Your task to perform on an android device: change the clock display to show seconds Image 0: 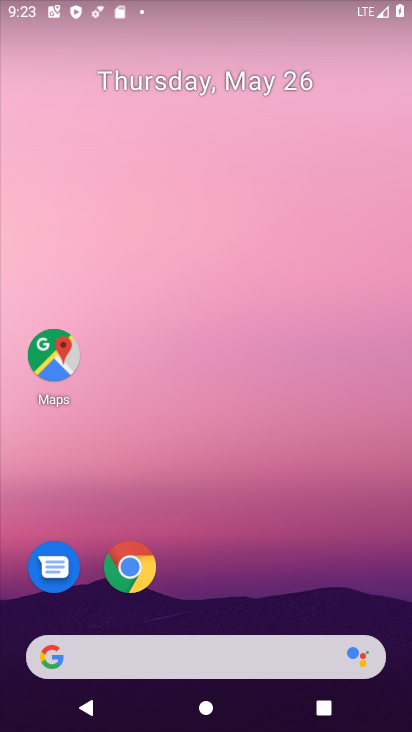
Step 0: drag from (150, 629) to (182, 0)
Your task to perform on an android device: change the clock display to show seconds Image 1: 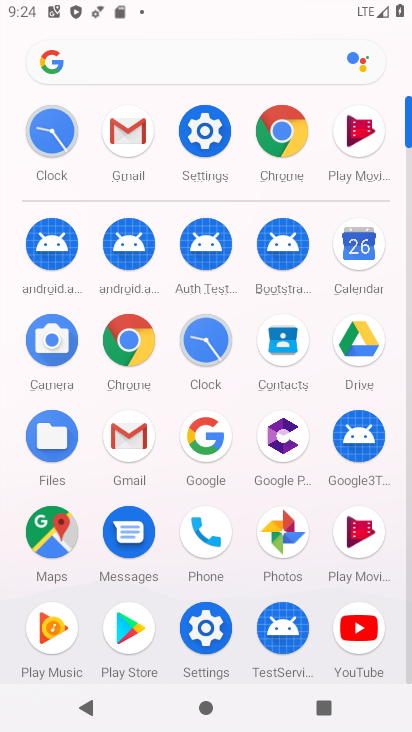
Step 1: click (209, 349)
Your task to perform on an android device: change the clock display to show seconds Image 2: 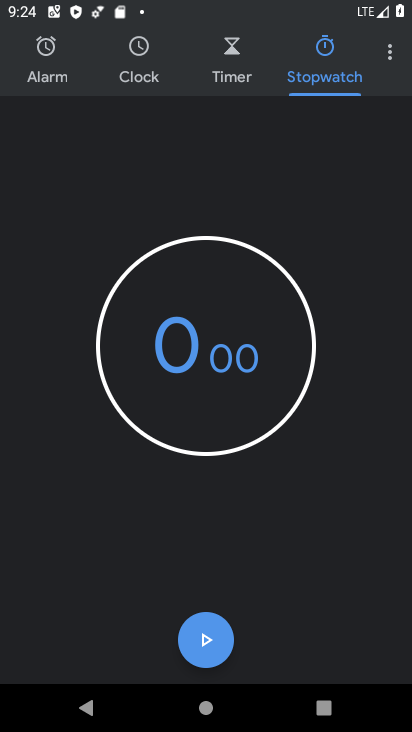
Step 2: click (389, 51)
Your task to perform on an android device: change the clock display to show seconds Image 3: 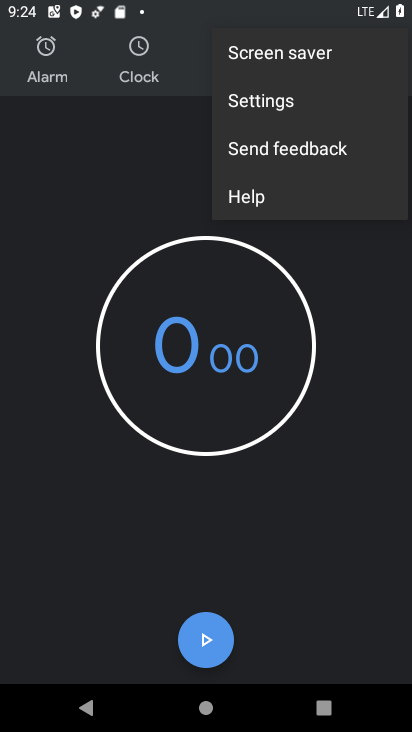
Step 3: click (296, 106)
Your task to perform on an android device: change the clock display to show seconds Image 4: 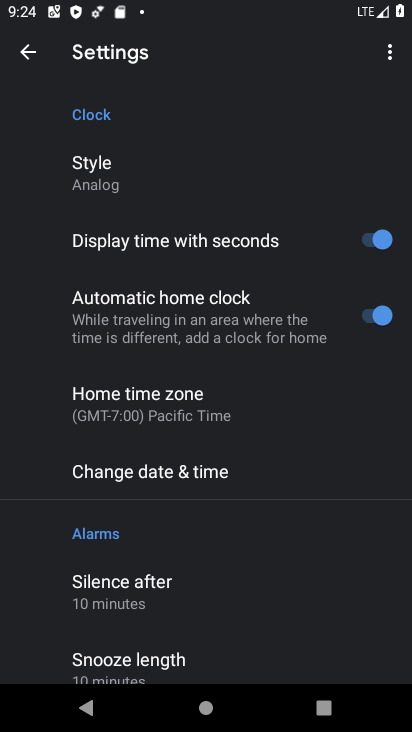
Step 4: task complete